Your task to perform on an android device: open app "Google Play Games" Image 0: 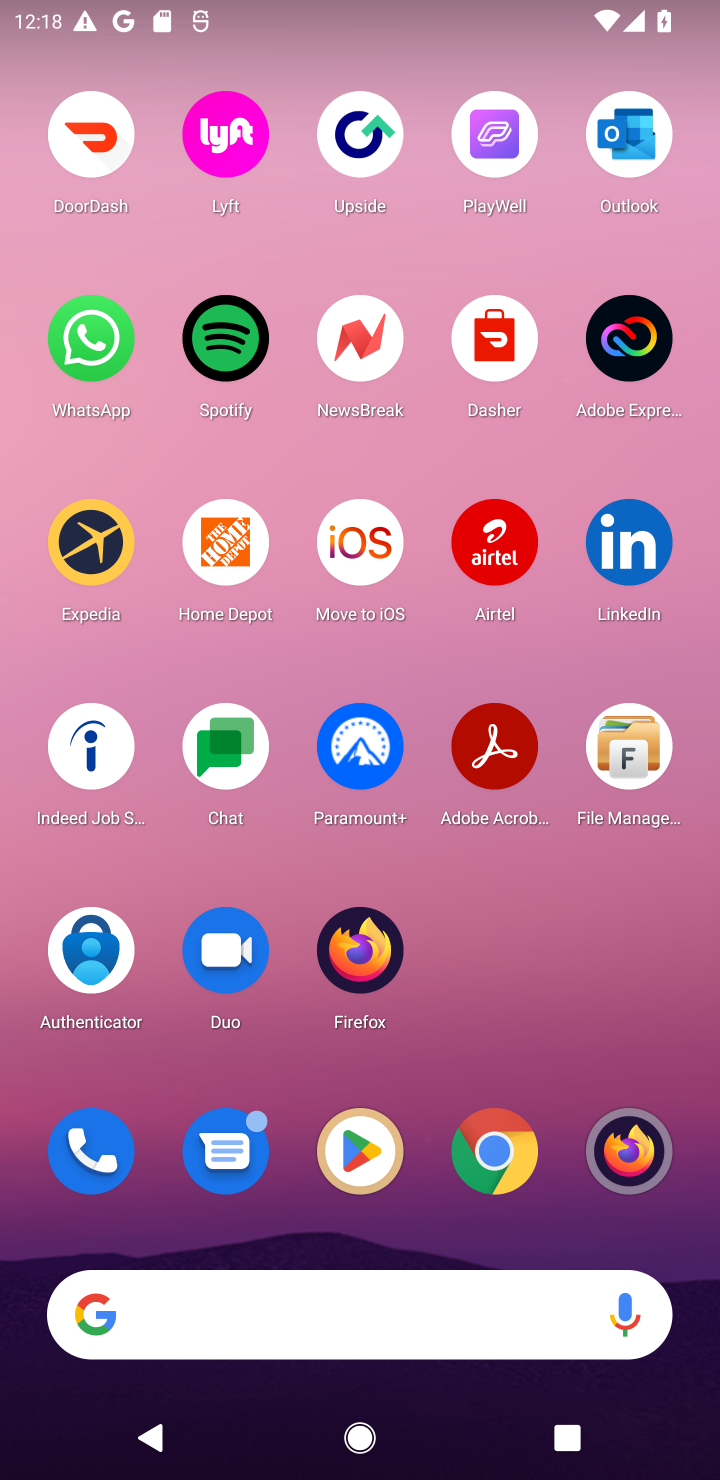
Step 0: click (332, 1155)
Your task to perform on an android device: open app "Google Play Games" Image 1: 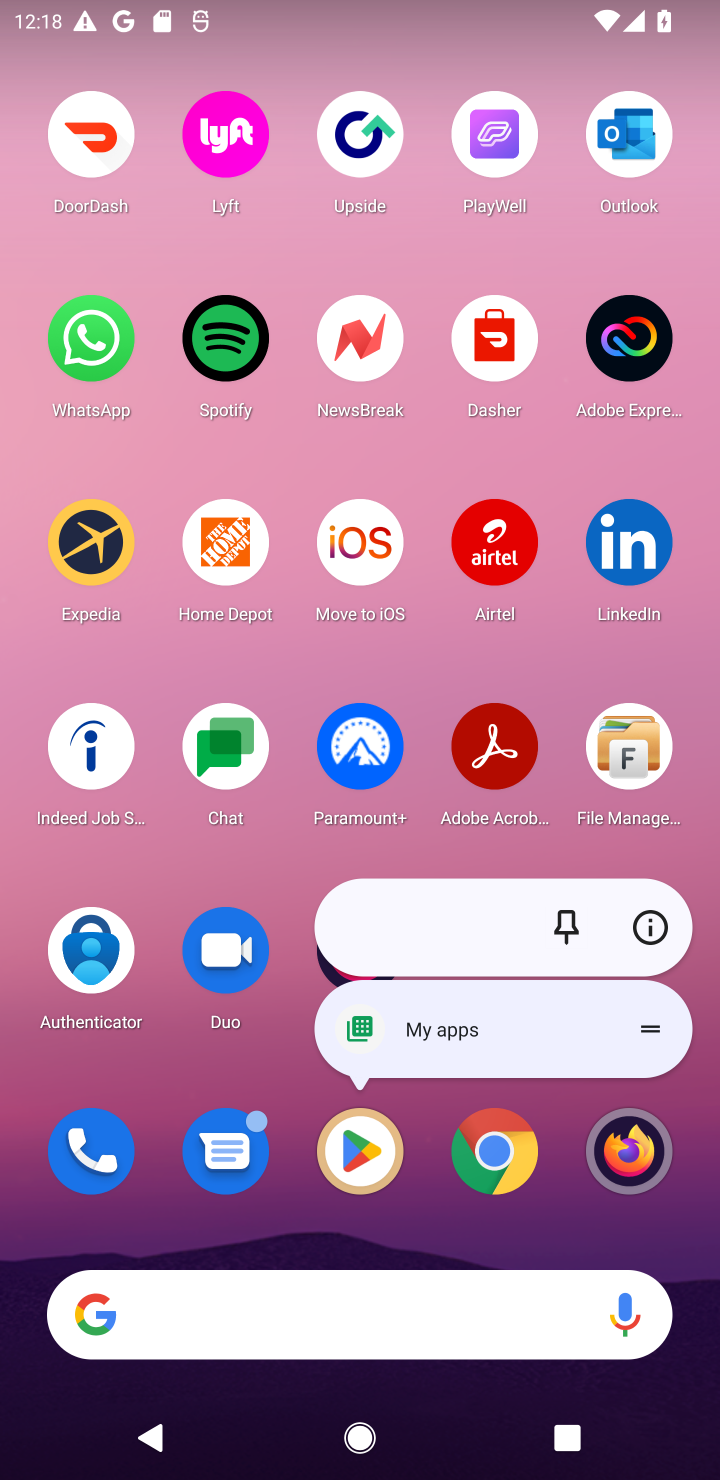
Step 1: click (332, 1155)
Your task to perform on an android device: open app "Google Play Games" Image 2: 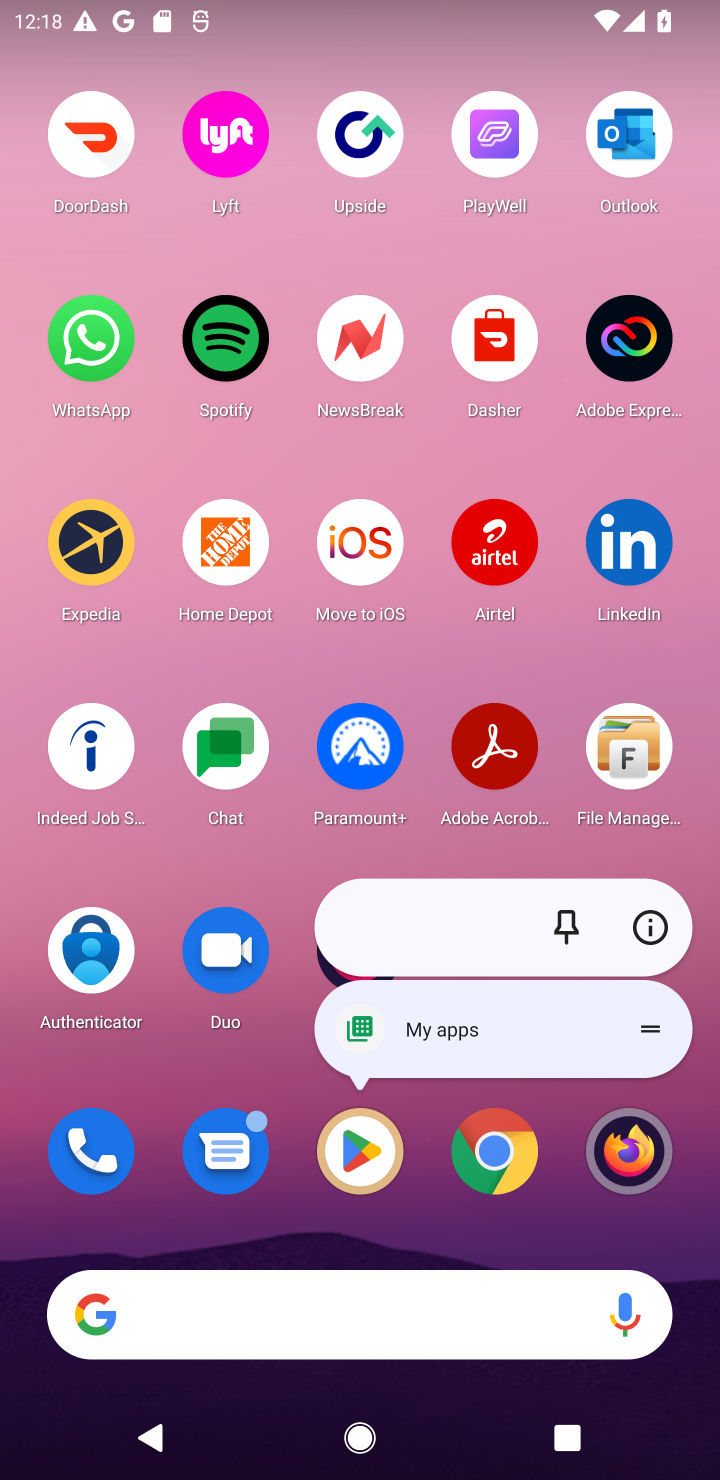
Step 2: click (351, 1160)
Your task to perform on an android device: open app "Google Play Games" Image 3: 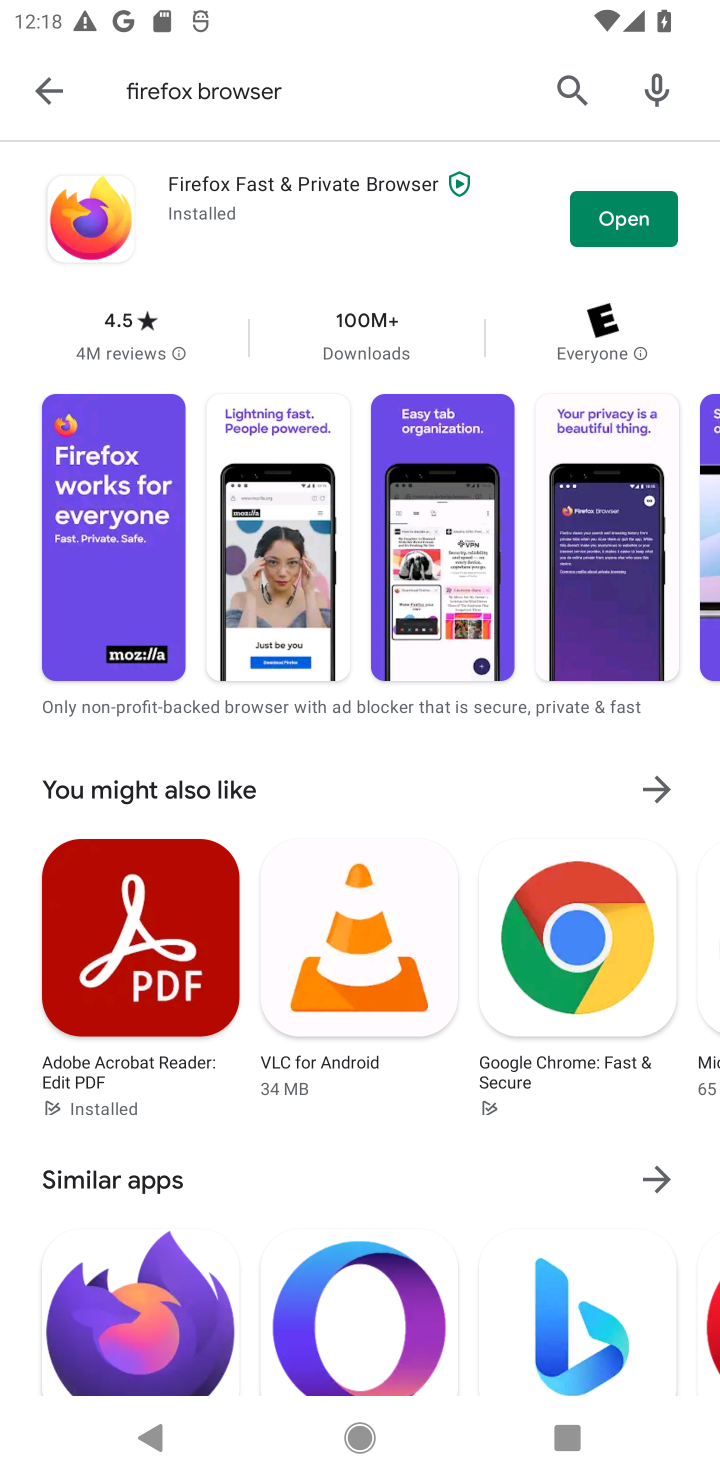
Step 3: click (590, 110)
Your task to perform on an android device: open app "Google Play Games" Image 4: 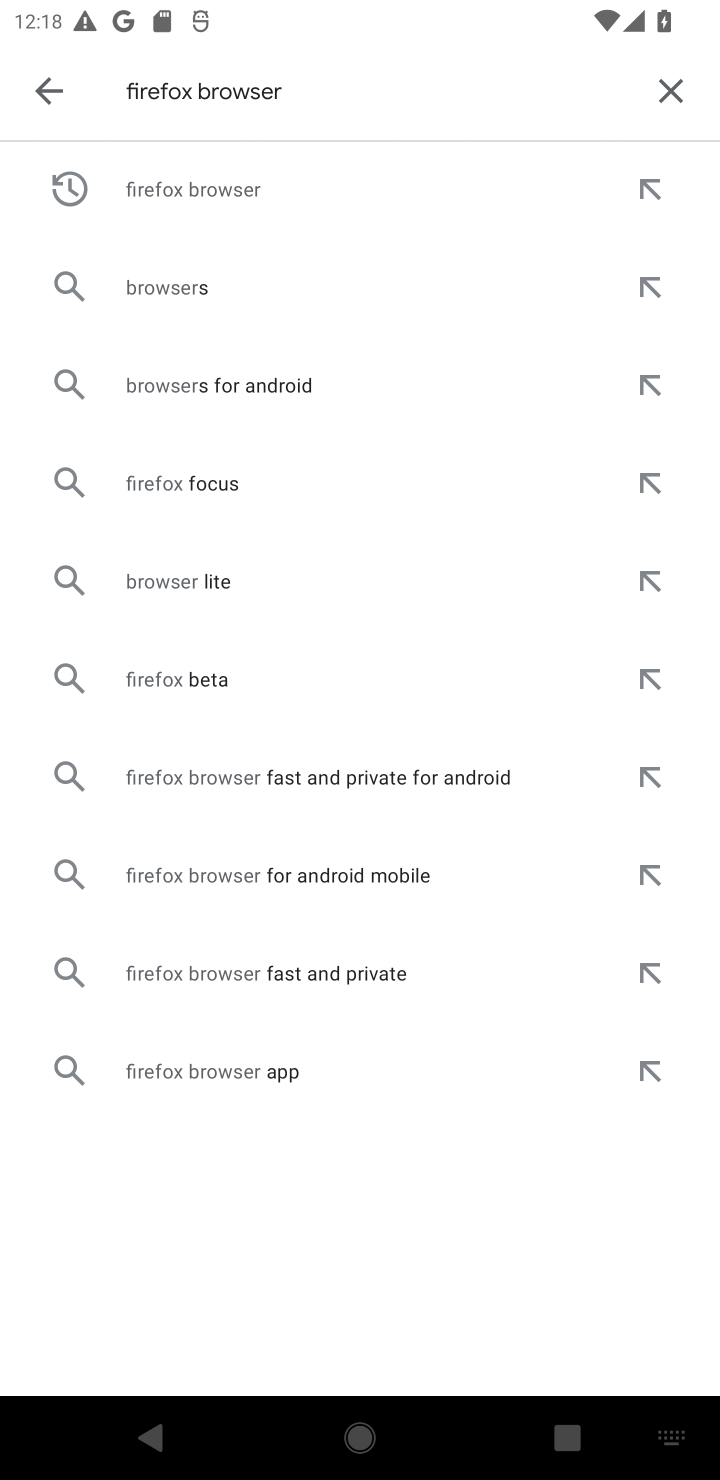
Step 4: click (657, 85)
Your task to perform on an android device: open app "Google Play Games" Image 5: 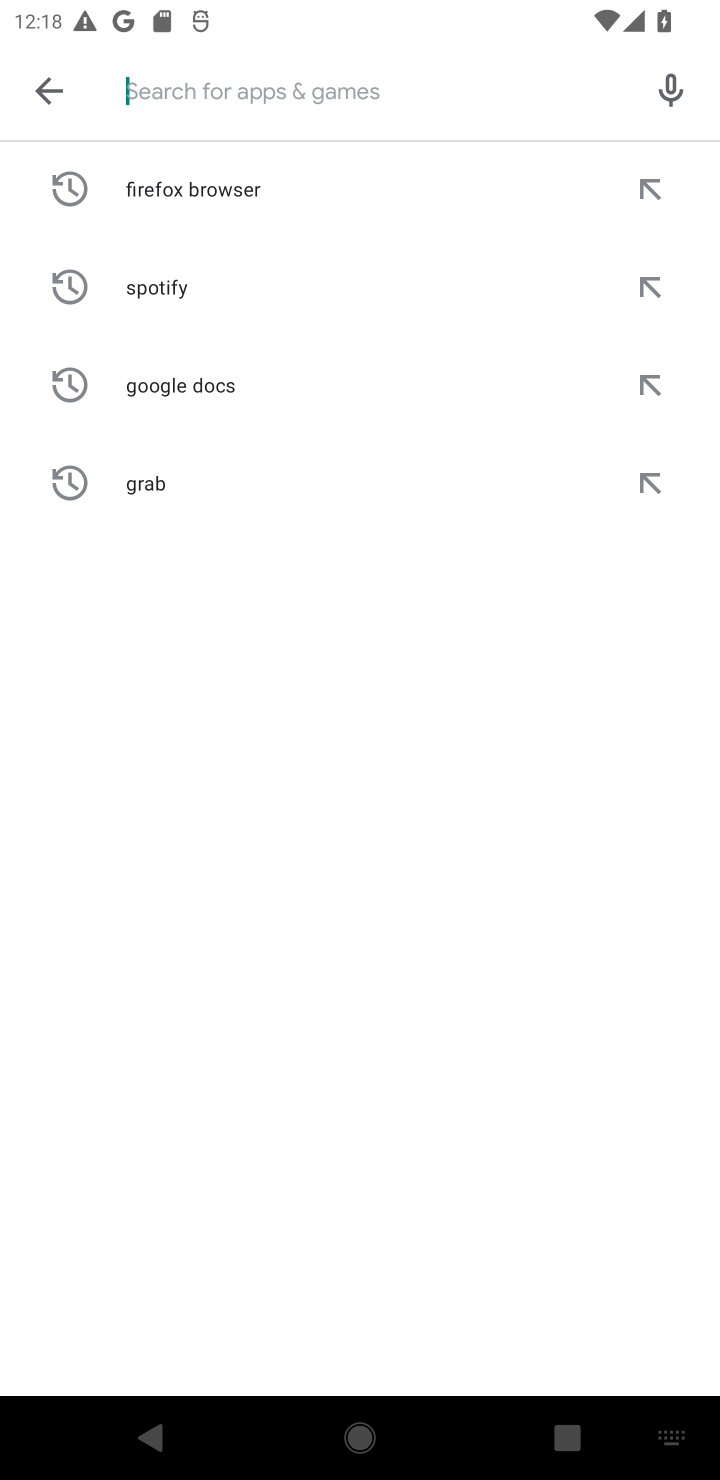
Step 5: type "Google Play Games"
Your task to perform on an android device: open app "Google Play Games" Image 6: 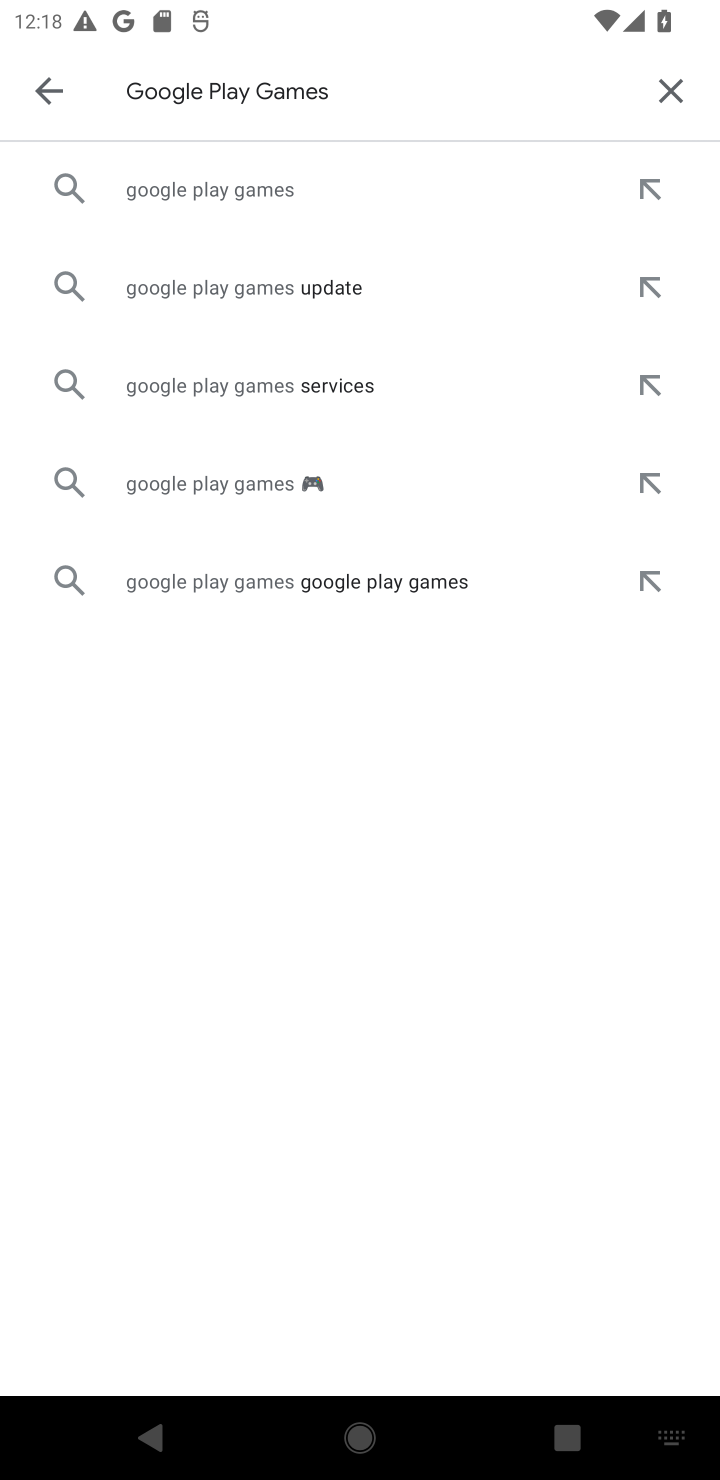
Step 6: click (280, 206)
Your task to perform on an android device: open app "Google Play Games" Image 7: 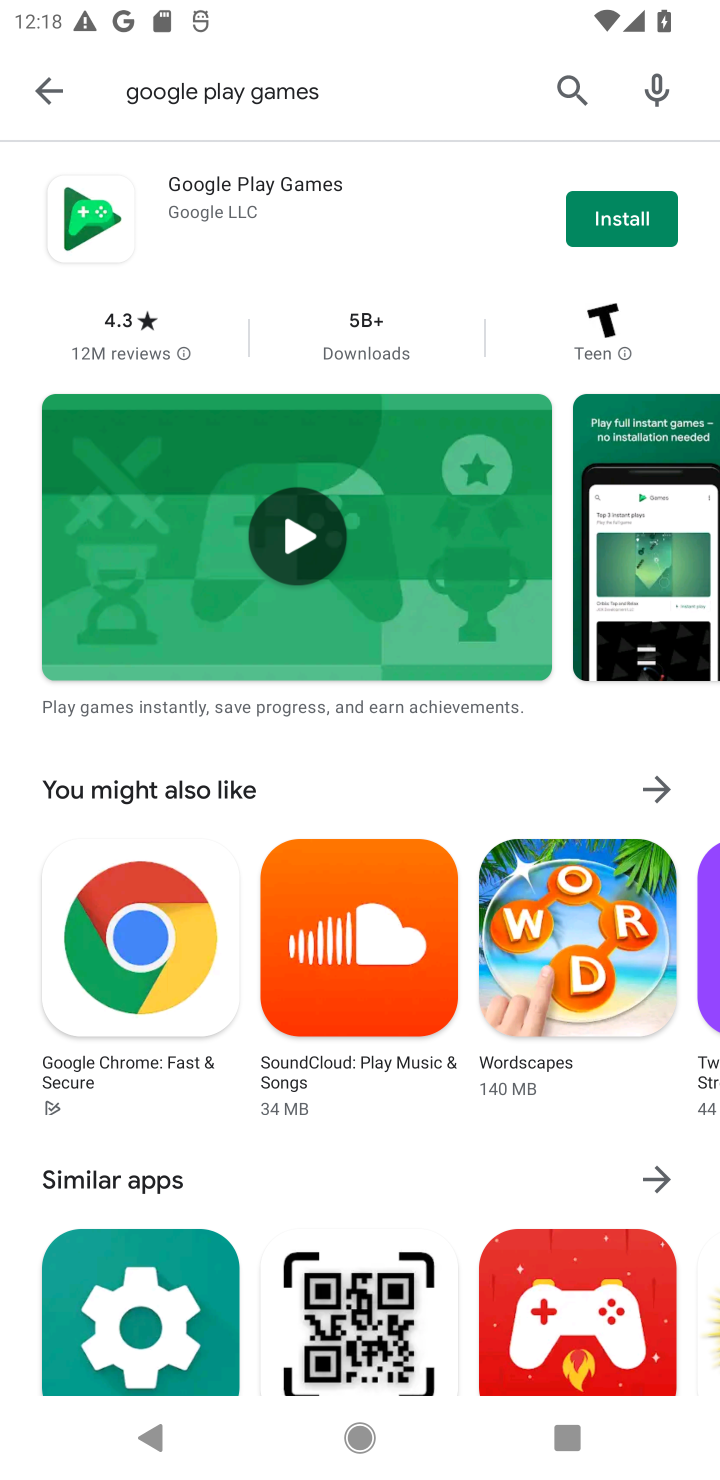
Step 7: click (398, 186)
Your task to perform on an android device: open app "Google Play Games" Image 8: 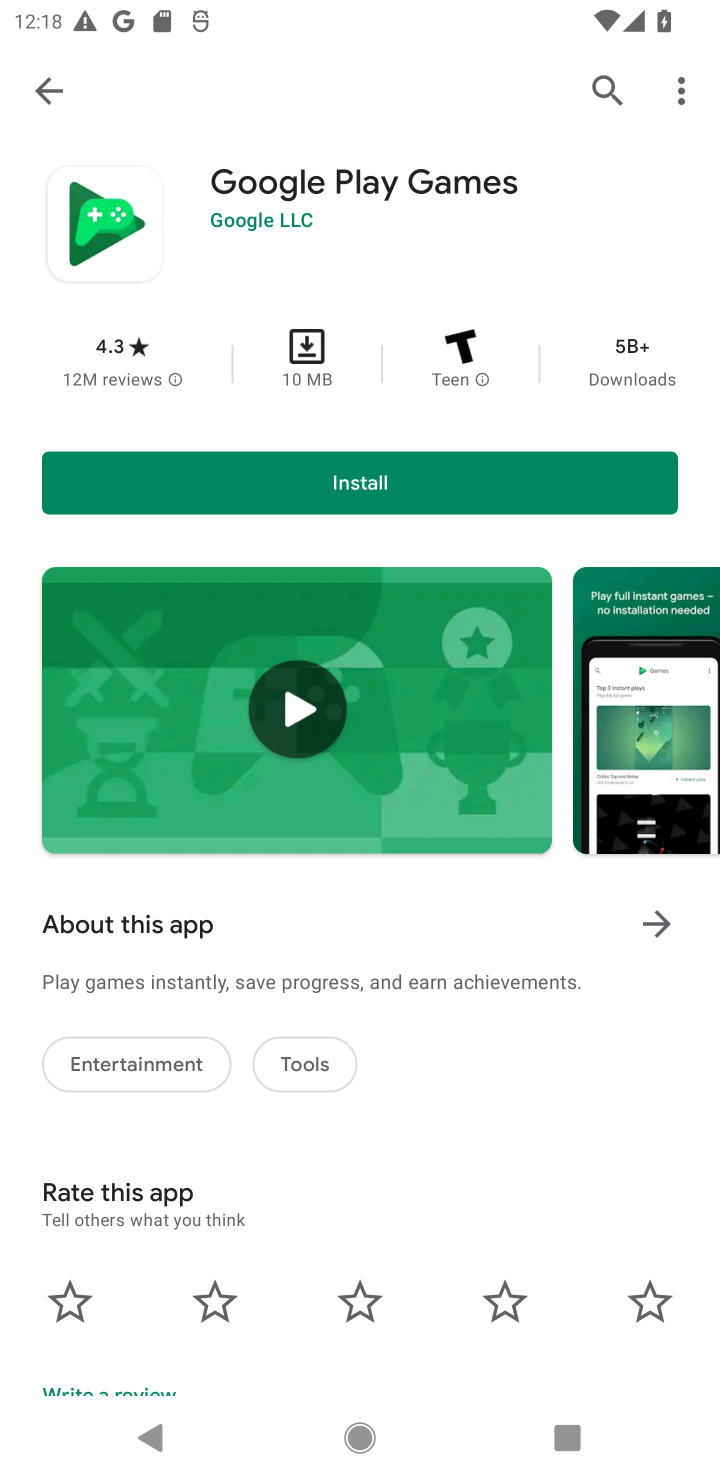
Step 8: task complete